Your task to perform on an android device: find photos in the google photos app Image 0: 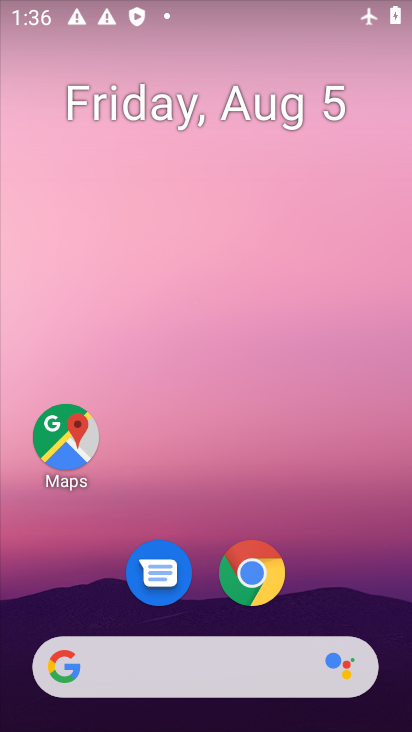
Step 0: press home button
Your task to perform on an android device: find photos in the google photos app Image 1: 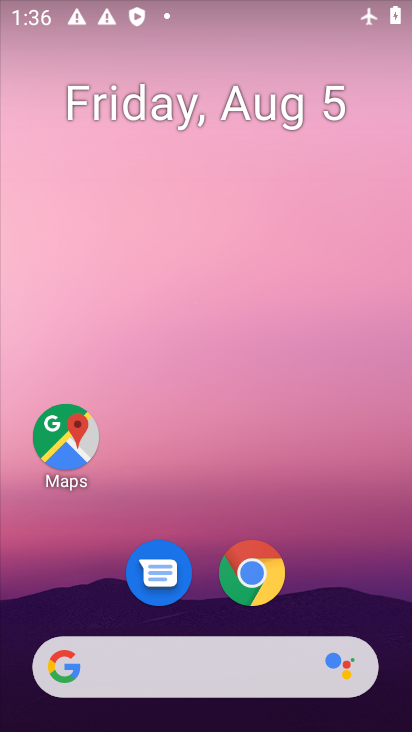
Step 1: drag from (347, 601) to (332, 346)
Your task to perform on an android device: find photos in the google photos app Image 2: 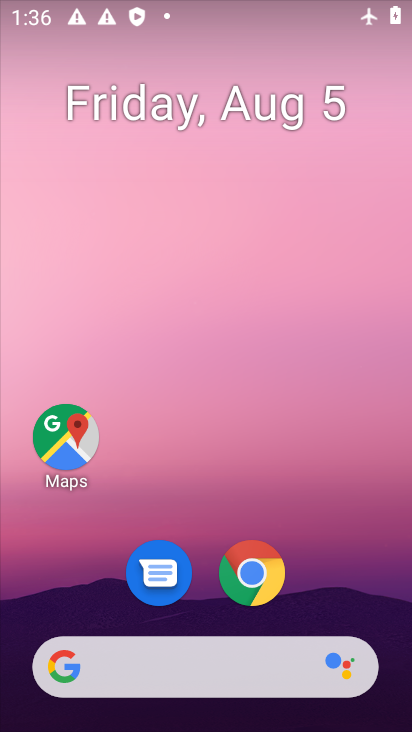
Step 2: drag from (328, 606) to (323, 202)
Your task to perform on an android device: find photos in the google photos app Image 3: 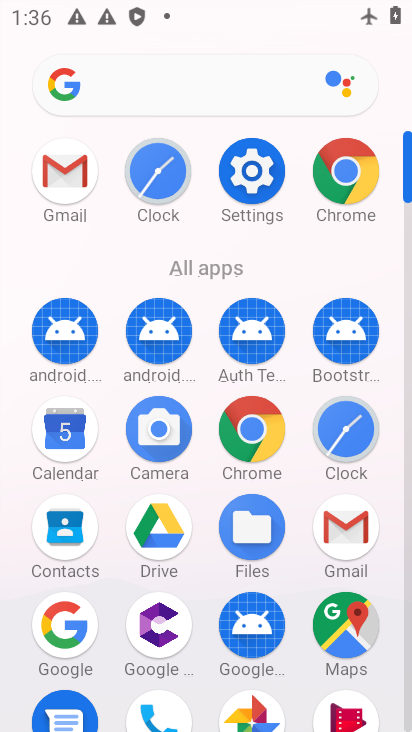
Step 3: drag from (395, 594) to (401, 399)
Your task to perform on an android device: find photos in the google photos app Image 4: 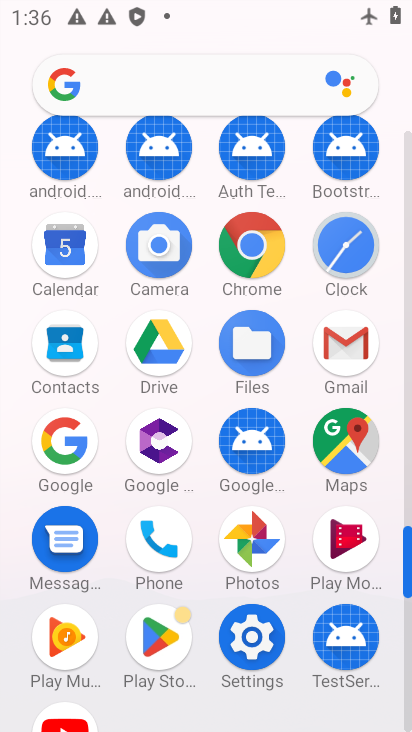
Step 4: click (248, 528)
Your task to perform on an android device: find photos in the google photos app Image 5: 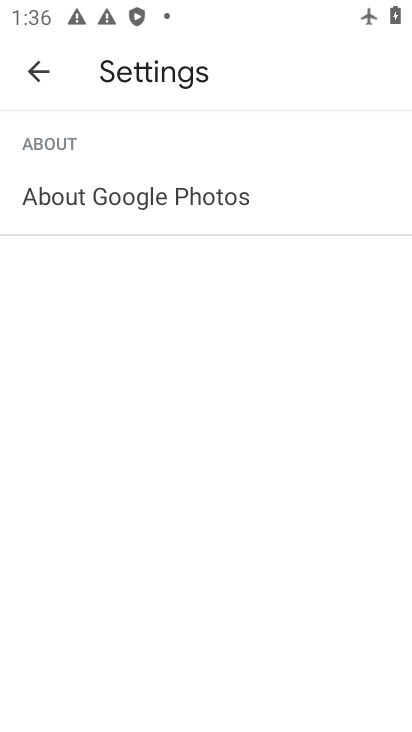
Step 5: press back button
Your task to perform on an android device: find photos in the google photos app Image 6: 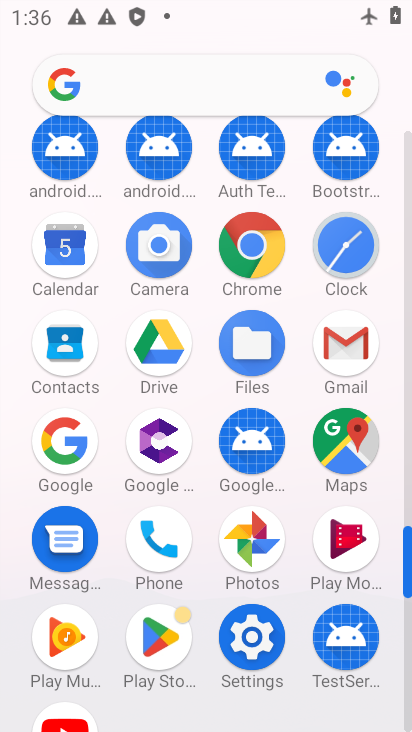
Step 6: click (263, 554)
Your task to perform on an android device: find photos in the google photos app Image 7: 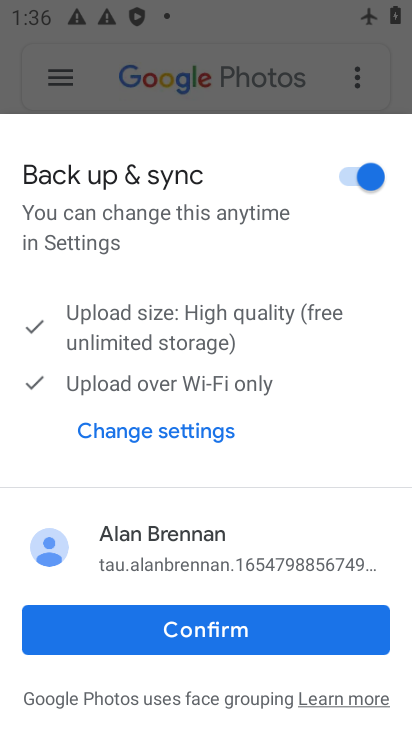
Step 7: click (224, 632)
Your task to perform on an android device: find photos in the google photos app Image 8: 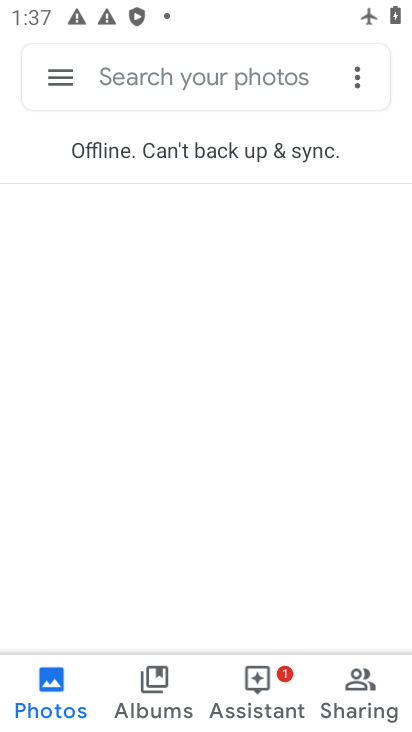
Step 8: task complete